Your task to perform on an android device: turn on wifi Image 0: 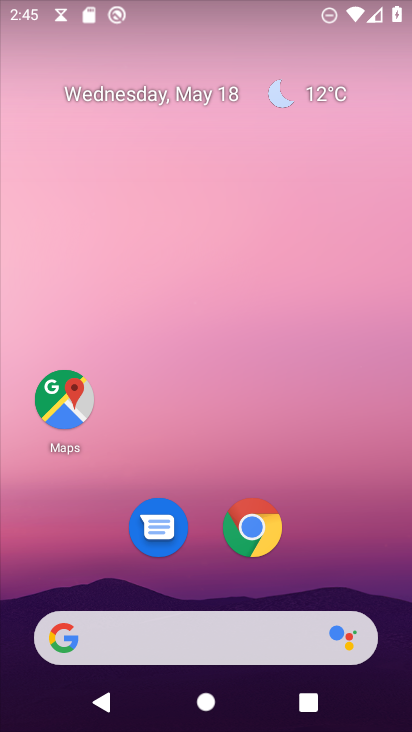
Step 0: drag from (329, 482) to (218, 67)
Your task to perform on an android device: turn on wifi Image 1: 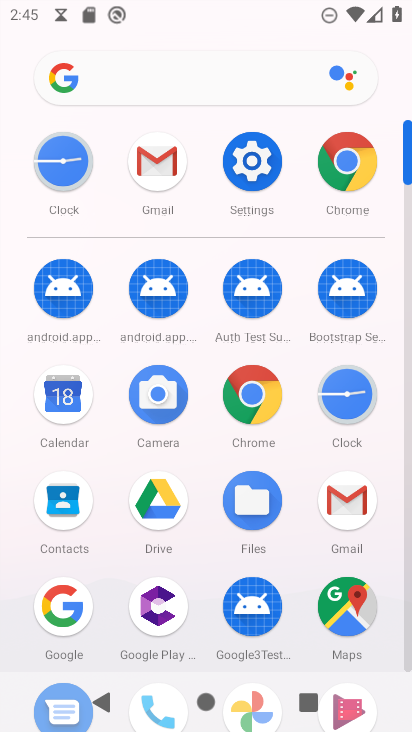
Step 1: click (251, 170)
Your task to perform on an android device: turn on wifi Image 2: 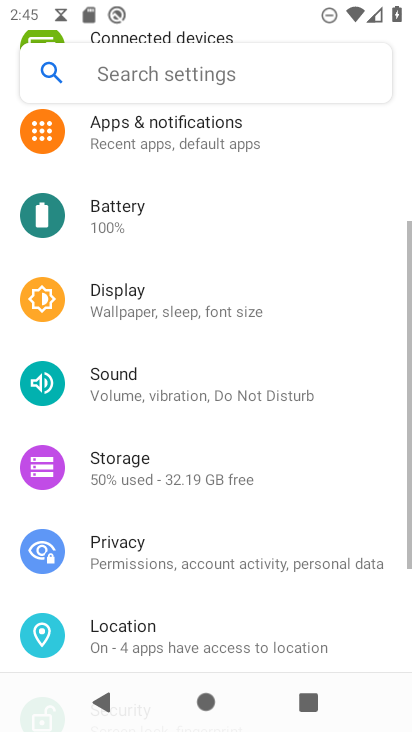
Step 2: drag from (232, 170) to (240, 634)
Your task to perform on an android device: turn on wifi Image 3: 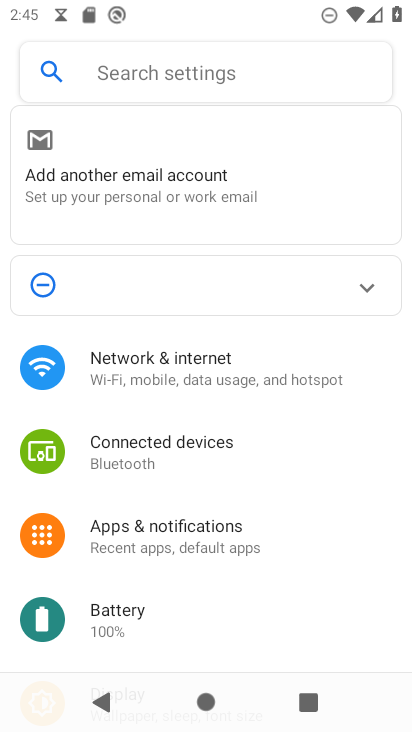
Step 3: click (220, 347)
Your task to perform on an android device: turn on wifi Image 4: 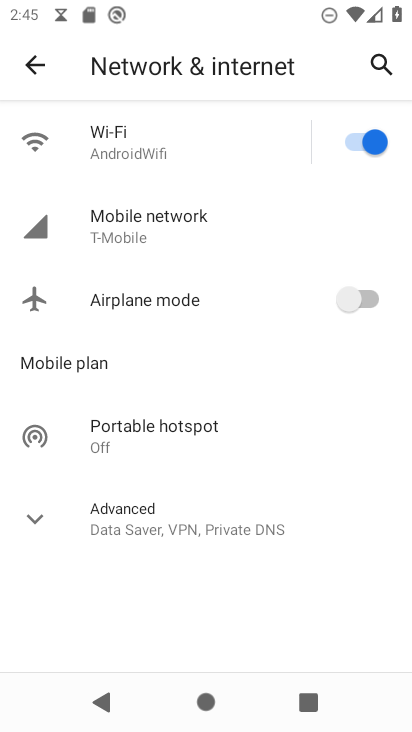
Step 4: click (204, 137)
Your task to perform on an android device: turn on wifi Image 5: 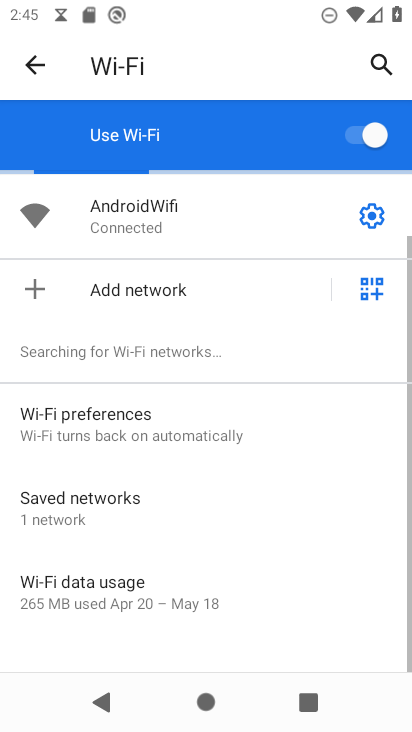
Step 5: task complete